Your task to perform on an android device: Open Chrome and go to settings Image 0: 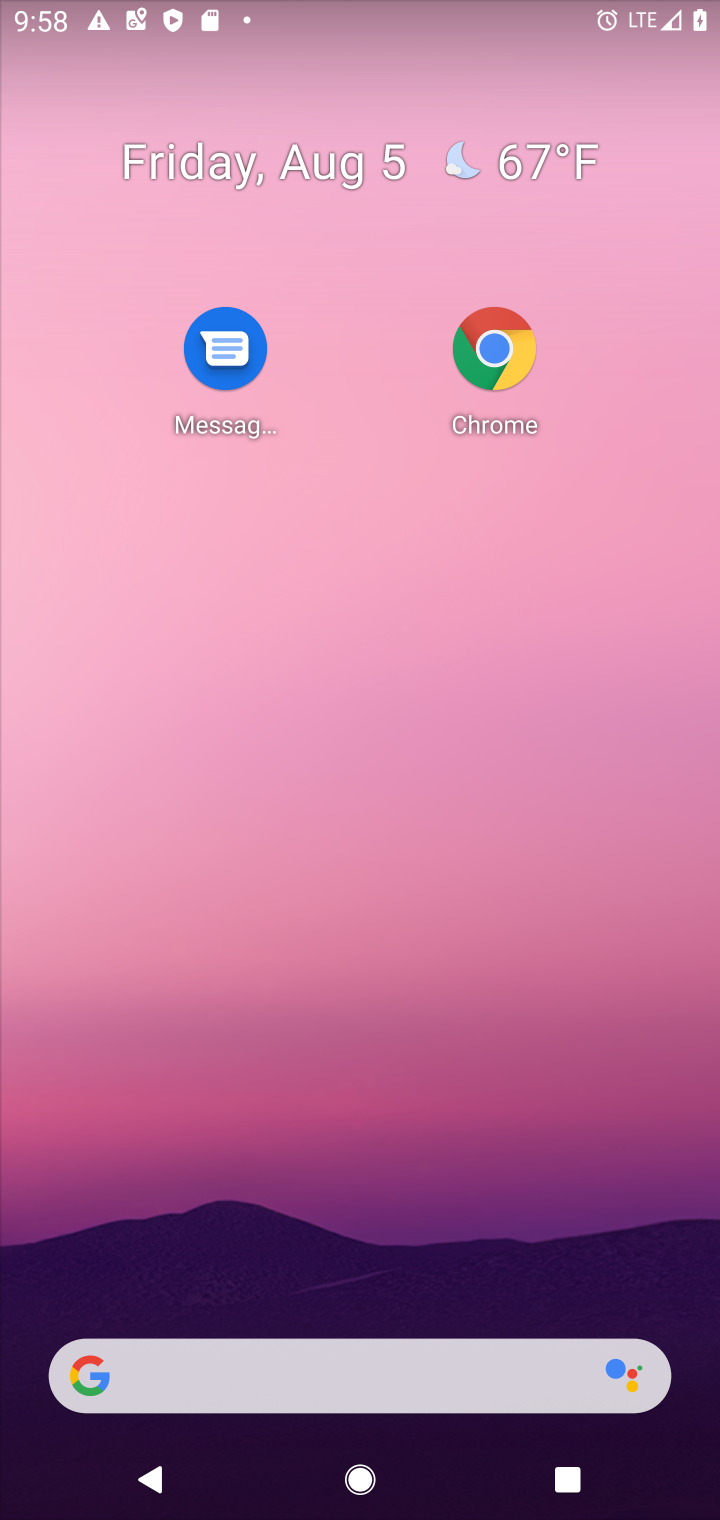
Step 0: press home button
Your task to perform on an android device: Open Chrome and go to settings Image 1: 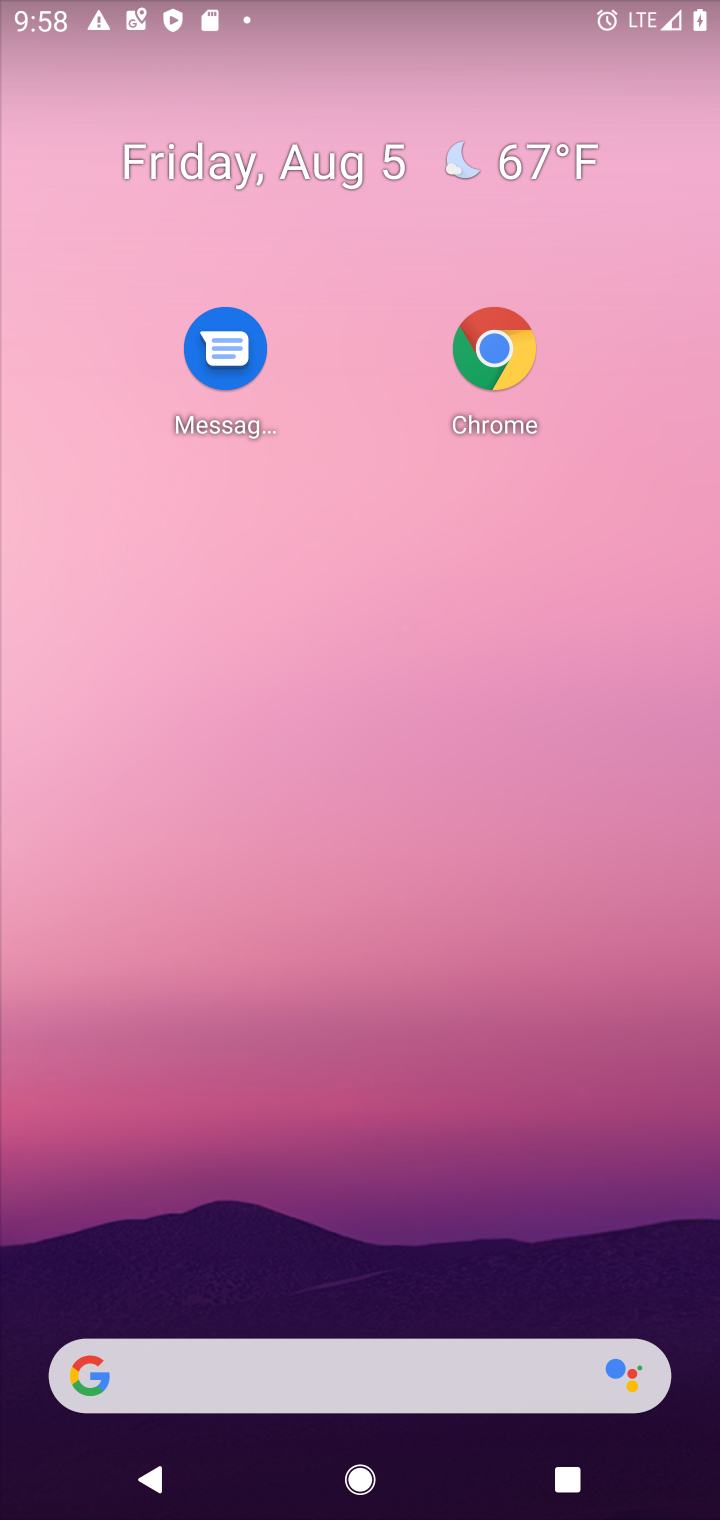
Step 1: drag from (459, 1260) to (414, 417)
Your task to perform on an android device: Open Chrome and go to settings Image 2: 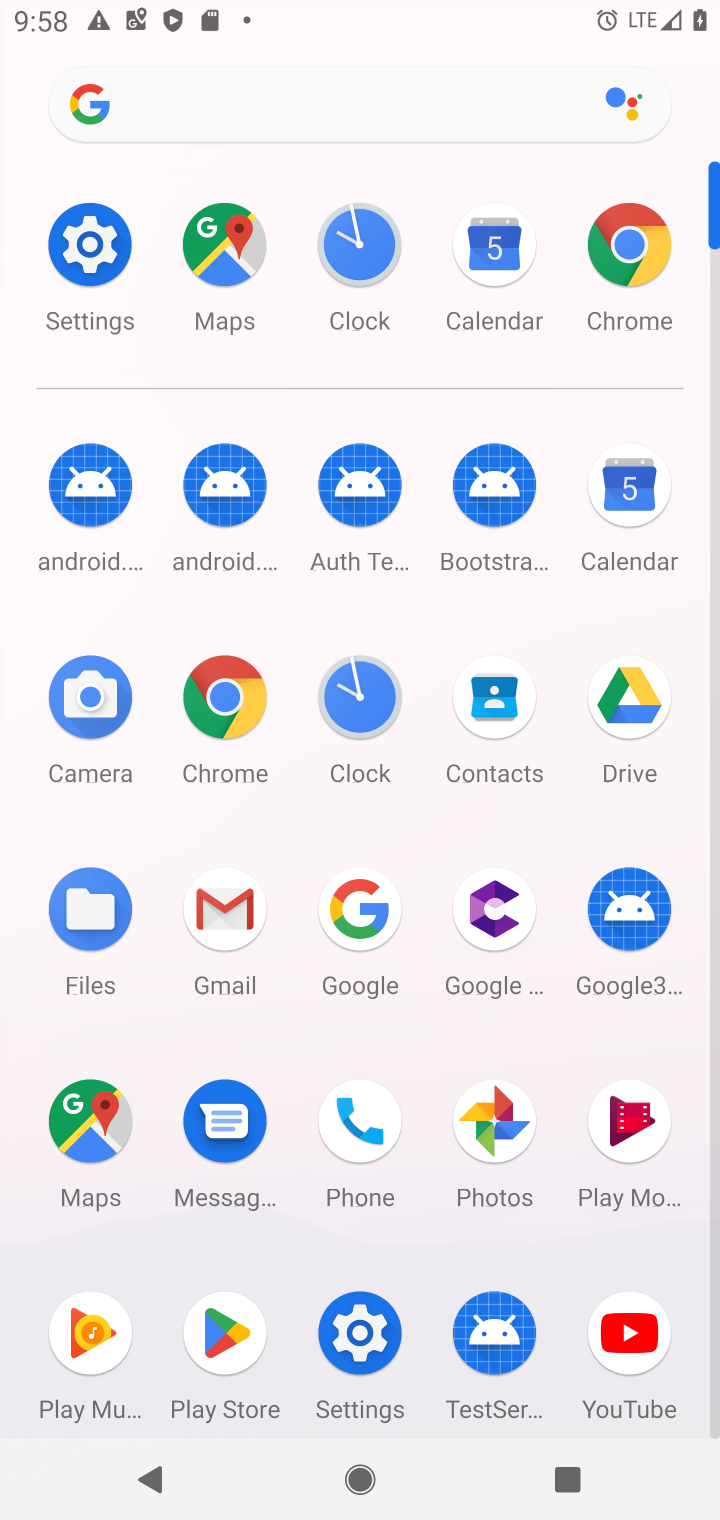
Step 2: click (610, 265)
Your task to perform on an android device: Open Chrome and go to settings Image 3: 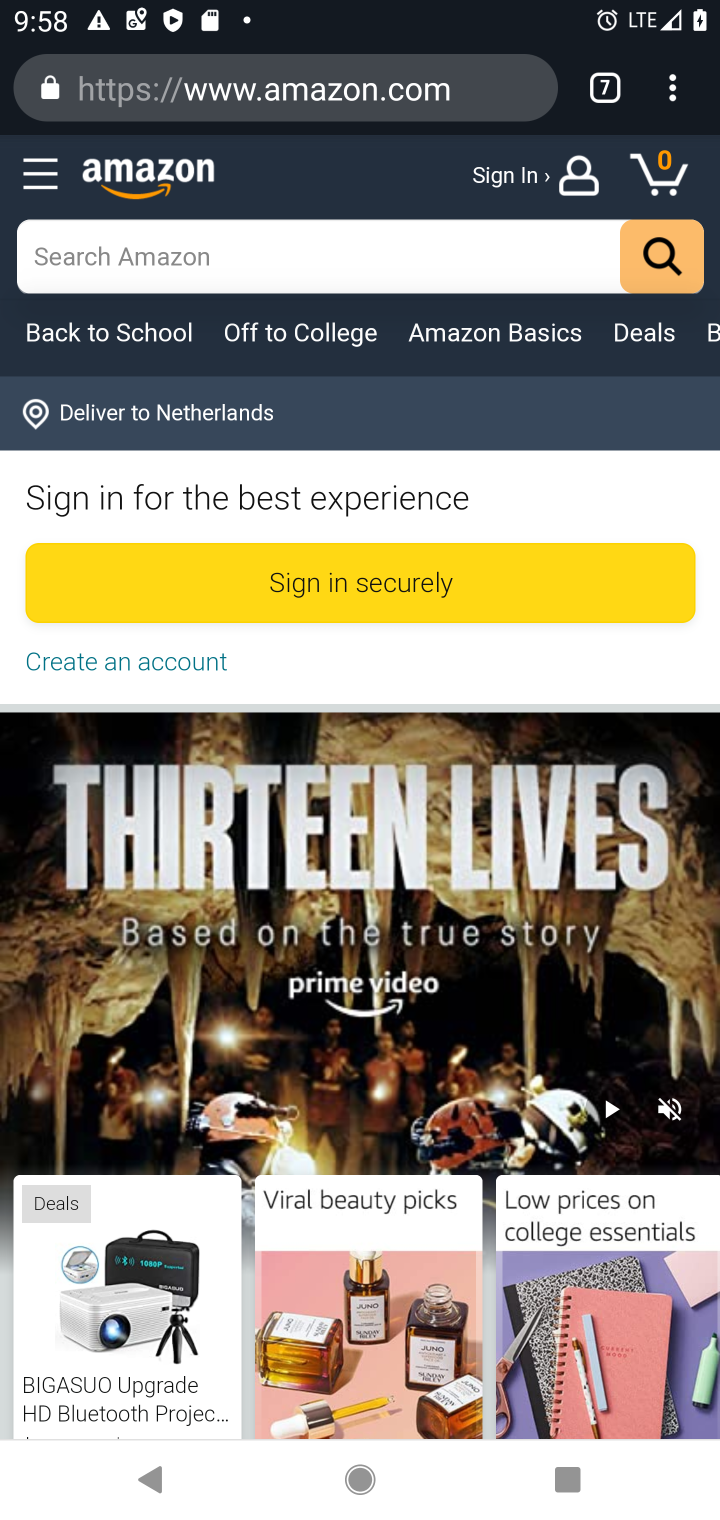
Step 3: click (667, 86)
Your task to perform on an android device: Open Chrome and go to settings Image 4: 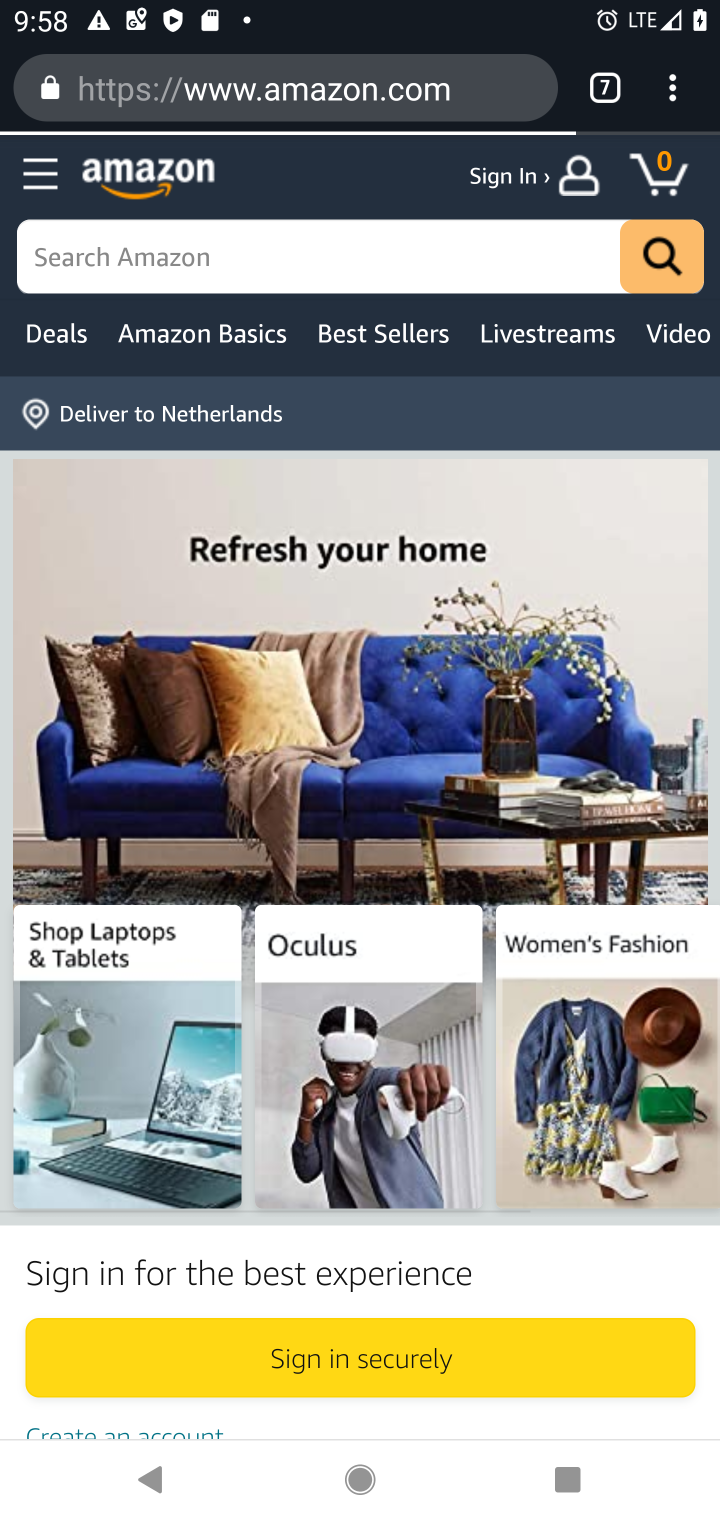
Step 4: click (664, 116)
Your task to perform on an android device: Open Chrome and go to settings Image 5: 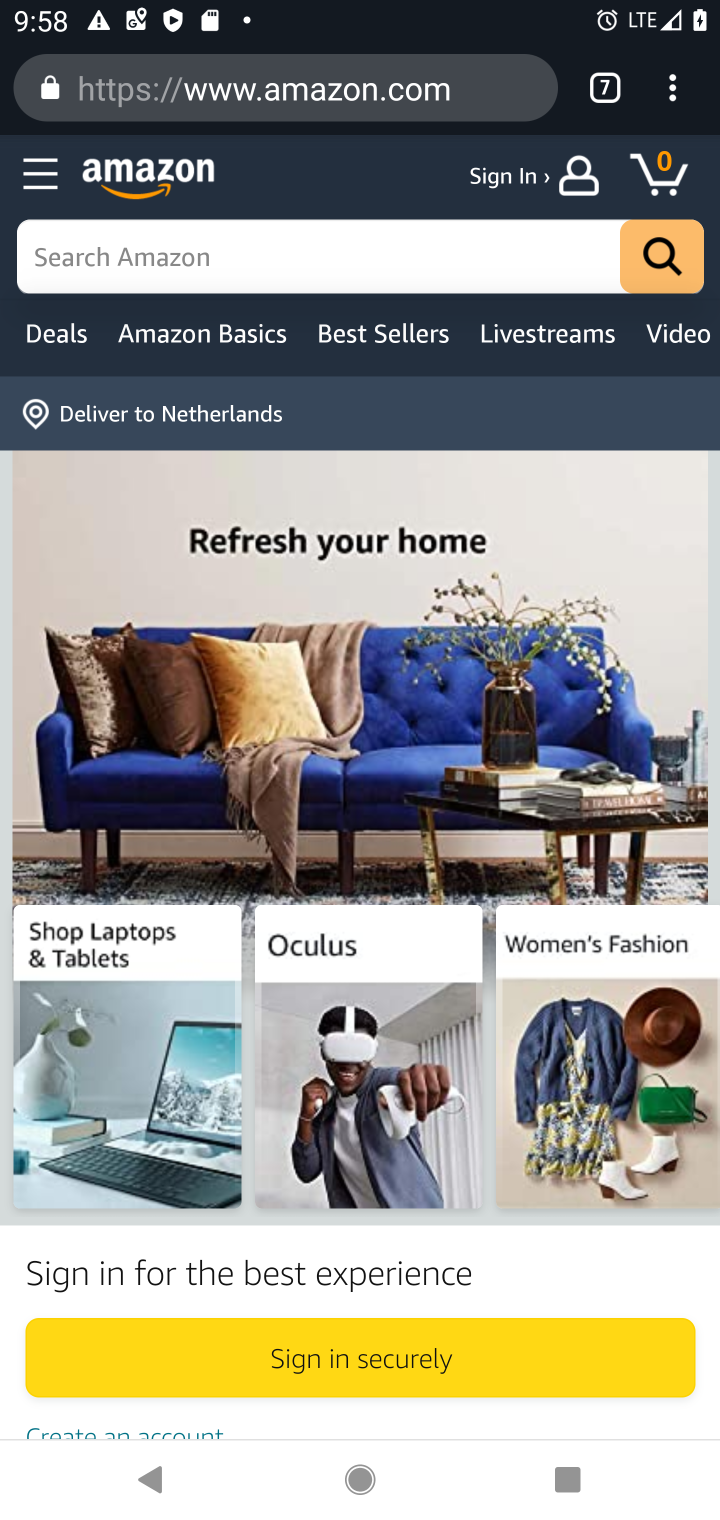
Step 5: click (648, 104)
Your task to perform on an android device: Open Chrome and go to settings Image 6: 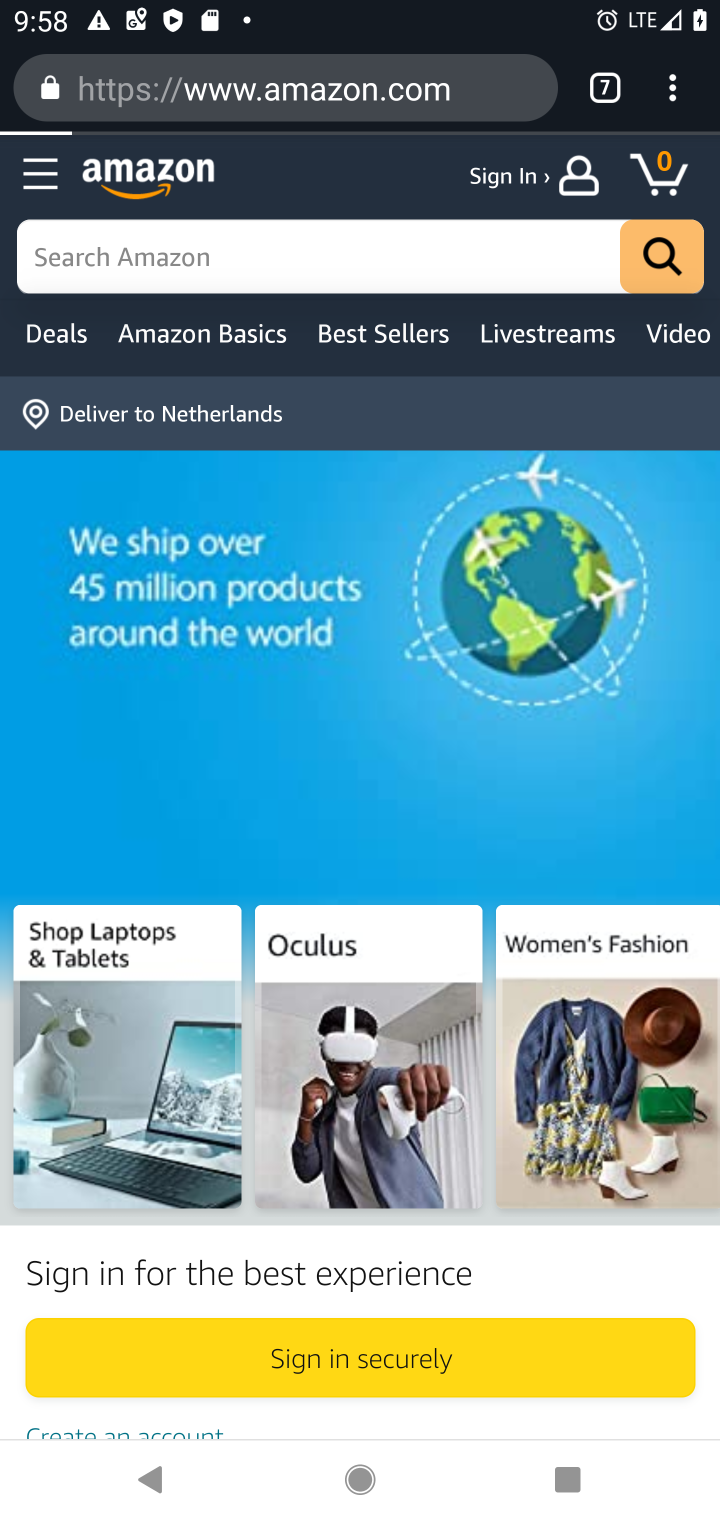
Step 6: click (648, 104)
Your task to perform on an android device: Open Chrome and go to settings Image 7: 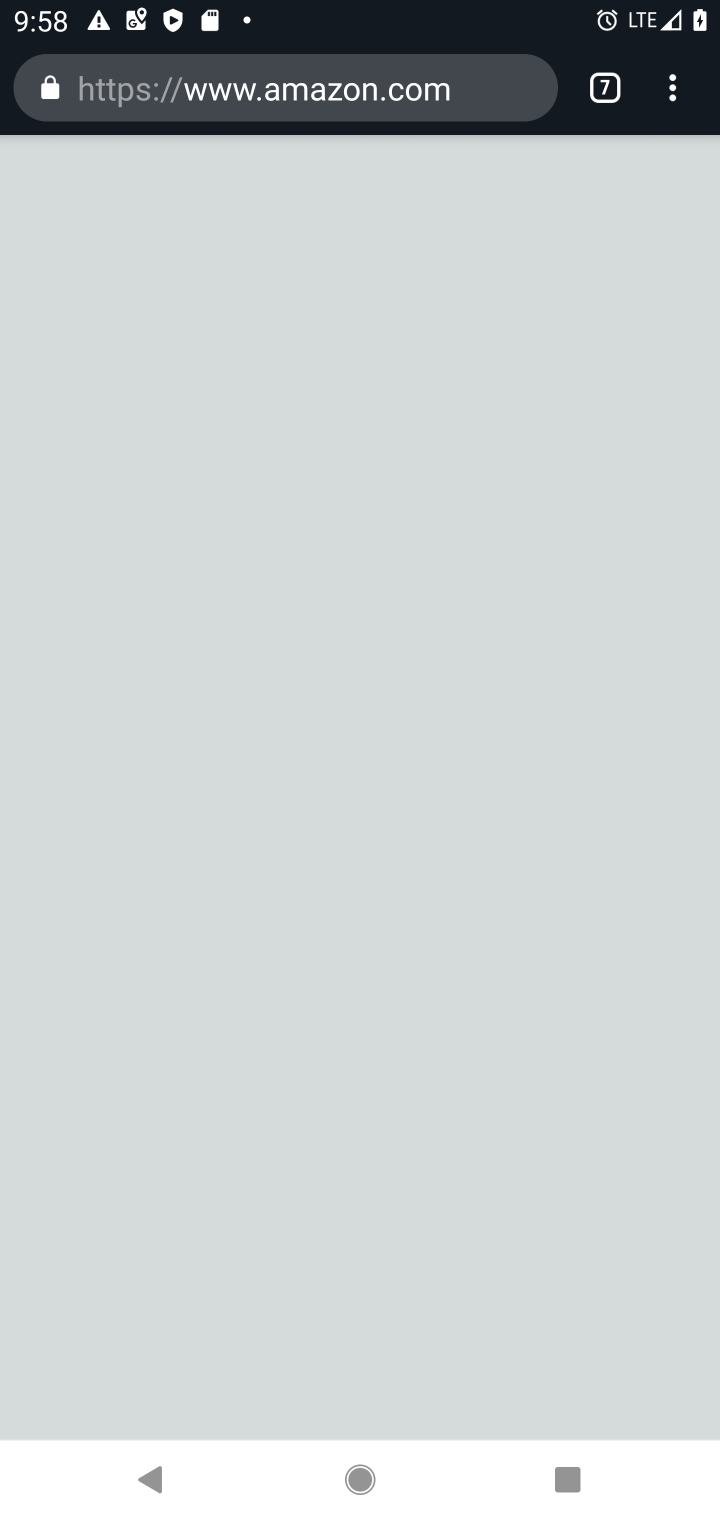
Step 7: click (673, 83)
Your task to perform on an android device: Open Chrome and go to settings Image 8: 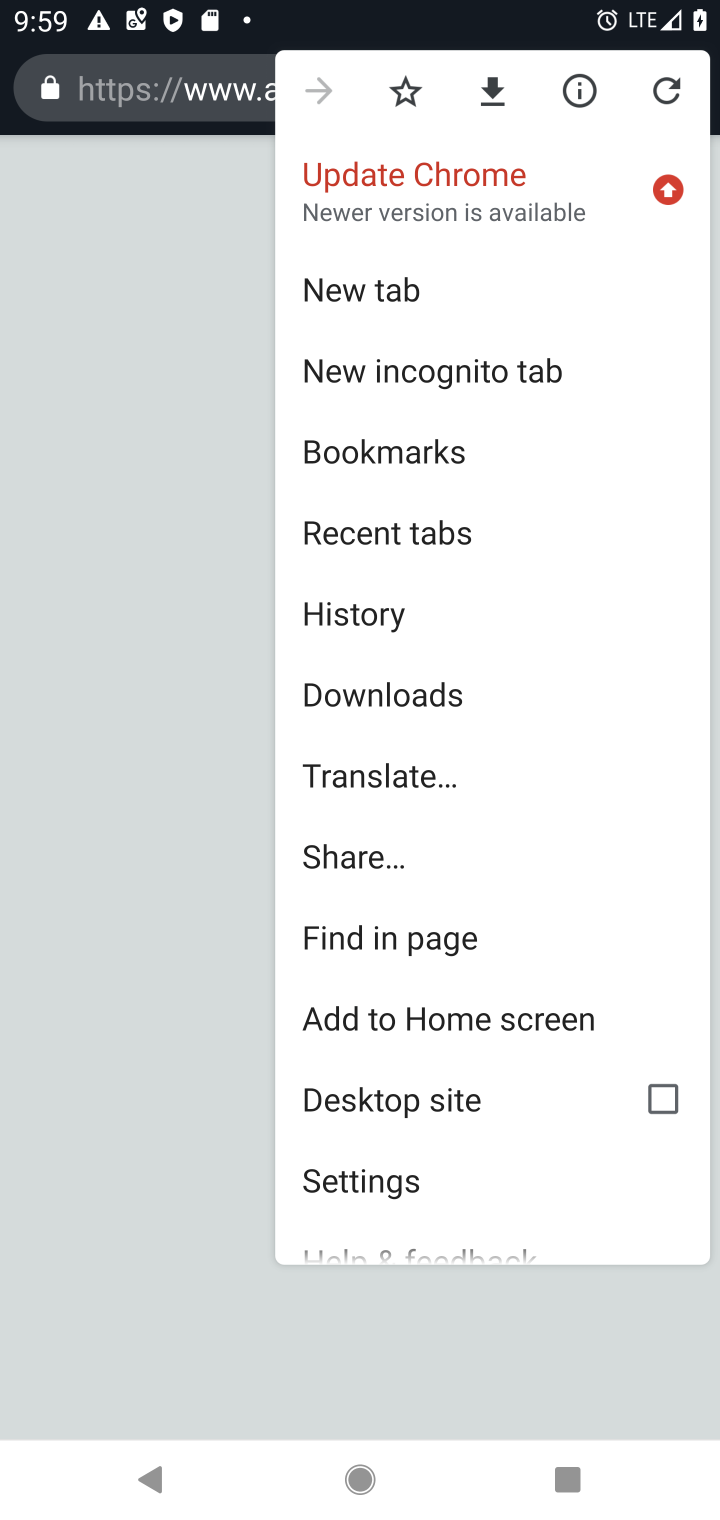
Step 8: click (412, 1158)
Your task to perform on an android device: Open Chrome and go to settings Image 9: 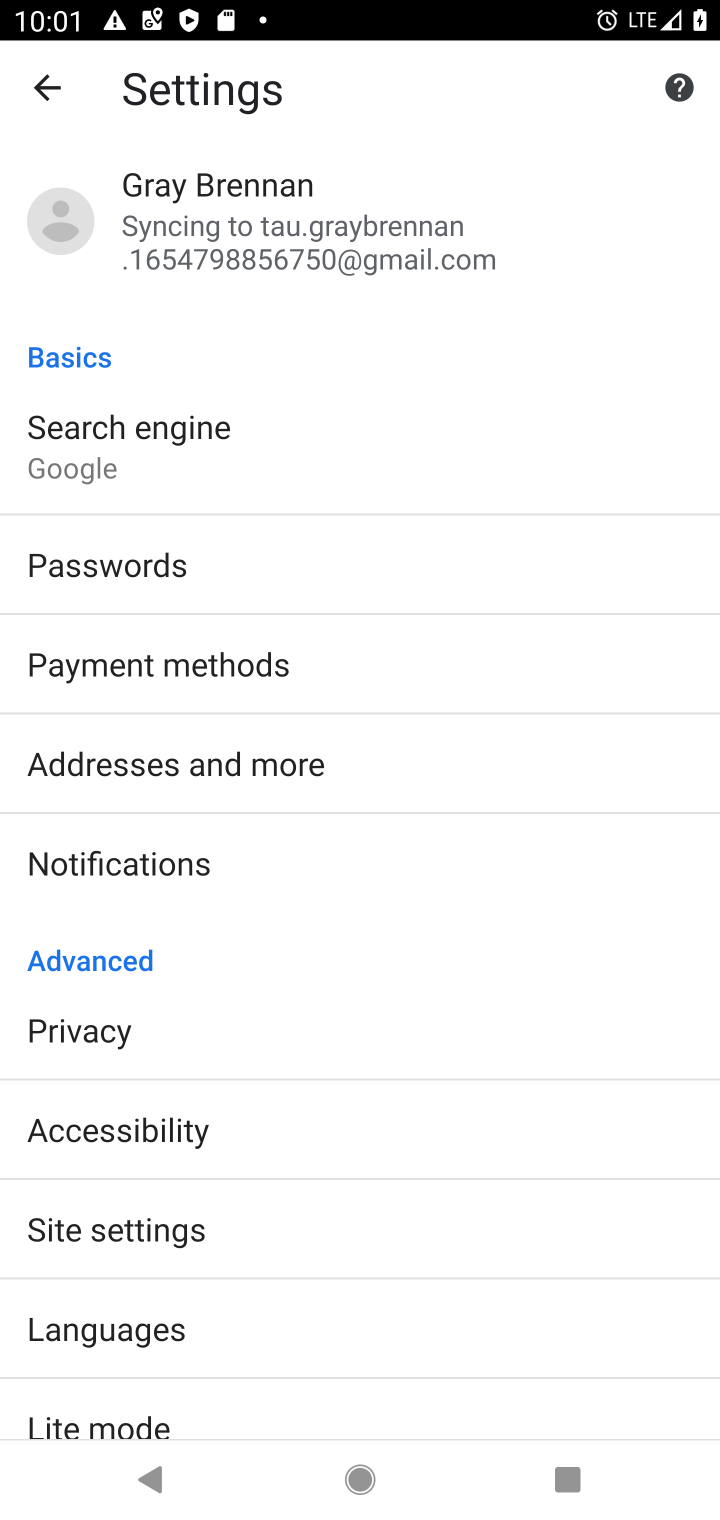
Step 9: task complete